Your task to perform on an android device: turn on the 24-hour format for clock Image 0: 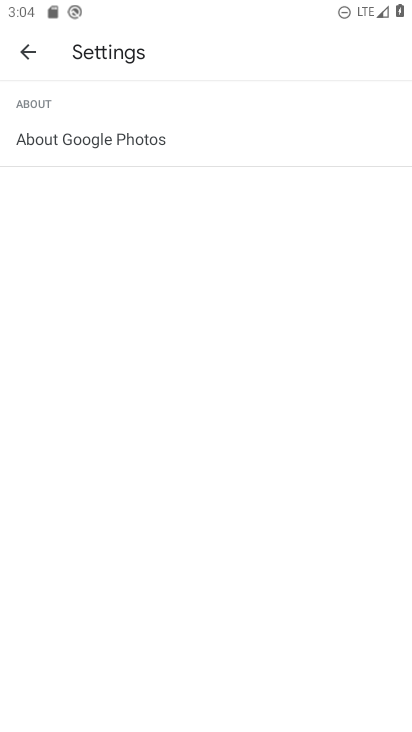
Step 0: drag from (180, 639) to (215, 256)
Your task to perform on an android device: turn on the 24-hour format for clock Image 1: 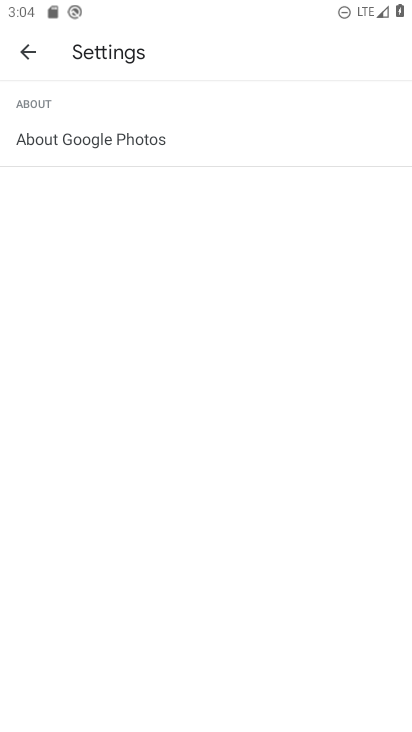
Step 1: press home button
Your task to perform on an android device: turn on the 24-hour format for clock Image 2: 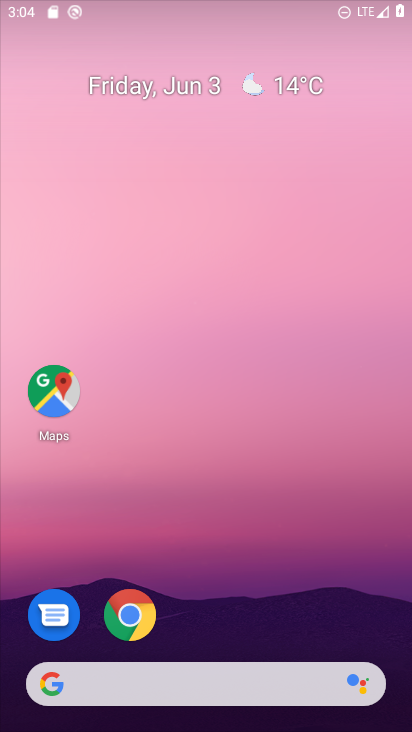
Step 2: drag from (298, 566) to (335, 107)
Your task to perform on an android device: turn on the 24-hour format for clock Image 3: 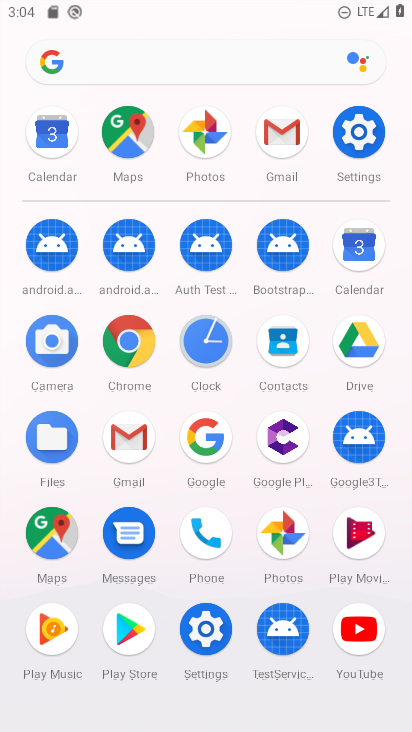
Step 3: click (205, 345)
Your task to perform on an android device: turn on the 24-hour format for clock Image 4: 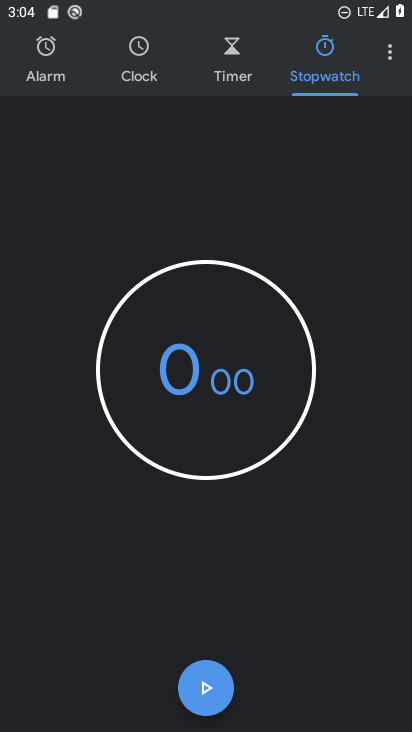
Step 4: drag from (295, 597) to (284, 119)
Your task to perform on an android device: turn on the 24-hour format for clock Image 5: 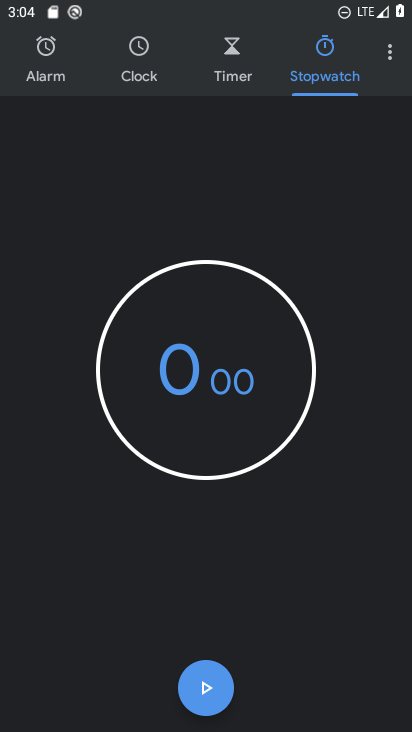
Step 5: click (397, 51)
Your task to perform on an android device: turn on the 24-hour format for clock Image 6: 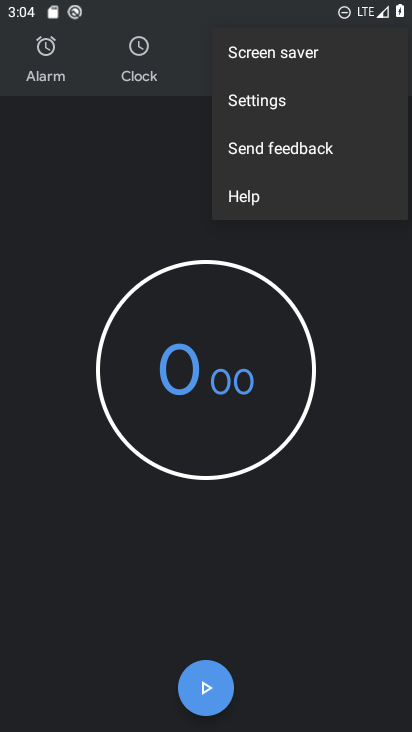
Step 6: click (304, 75)
Your task to perform on an android device: turn on the 24-hour format for clock Image 7: 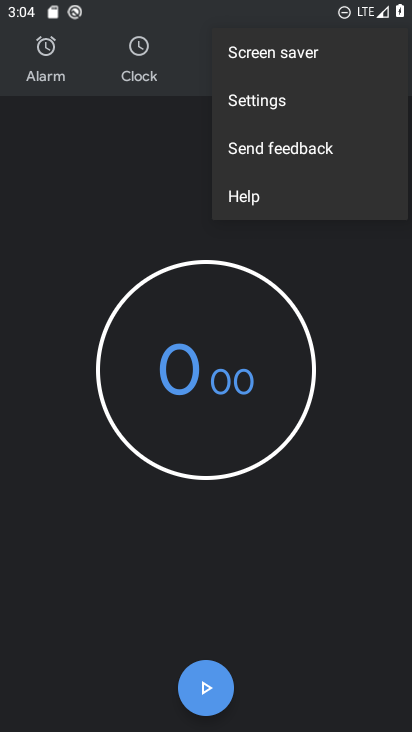
Step 7: click (303, 76)
Your task to perform on an android device: turn on the 24-hour format for clock Image 8: 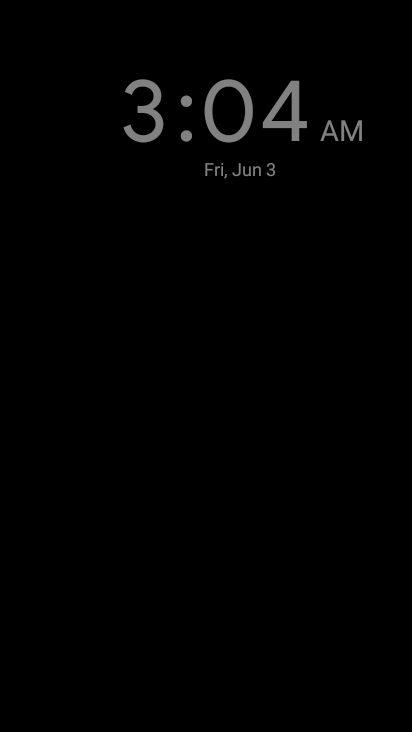
Step 8: click (261, 273)
Your task to perform on an android device: turn on the 24-hour format for clock Image 9: 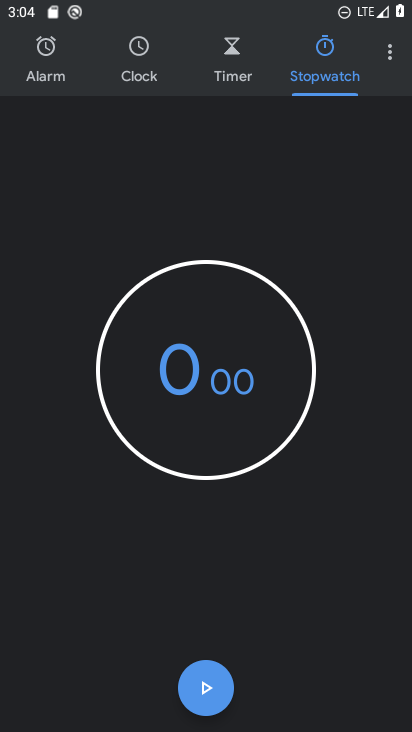
Step 9: click (381, 50)
Your task to perform on an android device: turn on the 24-hour format for clock Image 10: 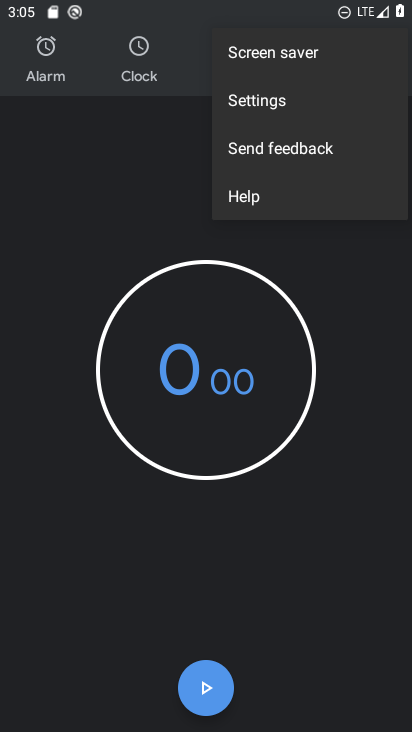
Step 10: click (287, 109)
Your task to perform on an android device: turn on the 24-hour format for clock Image 11: 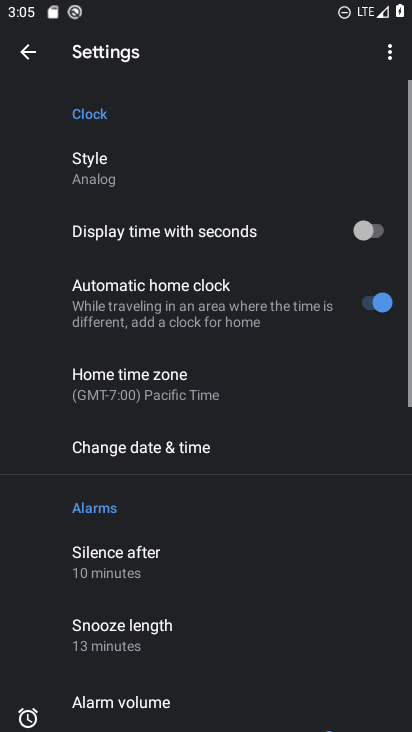
Step 11: drag from (260, 486) to (275, 129)
Your task to perform on an android device: turn on the 24-hour format for clock Image 12: 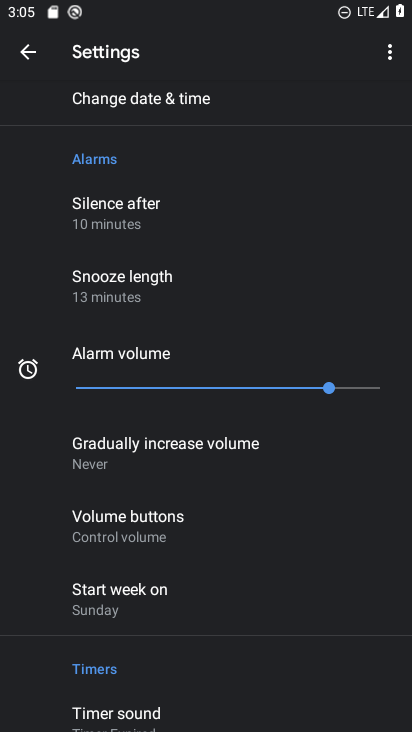
Step 12: click (188, 102)
Your task to perform on an android device: turn on the 24-hour format for clock Image 13: 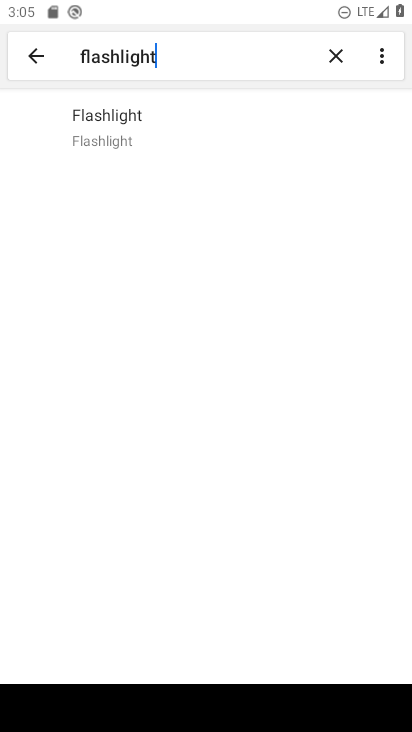
Step 13: click (179, 111)
Your task to perform on an android device: turn on the 24-hour format for clock Image 14: 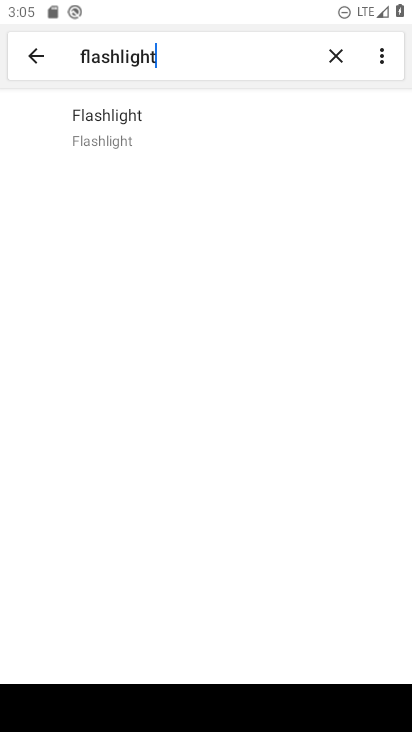
Step 14: press home button
Your task to perform on an android device: turn on the 24-hour format for clock Image 15: 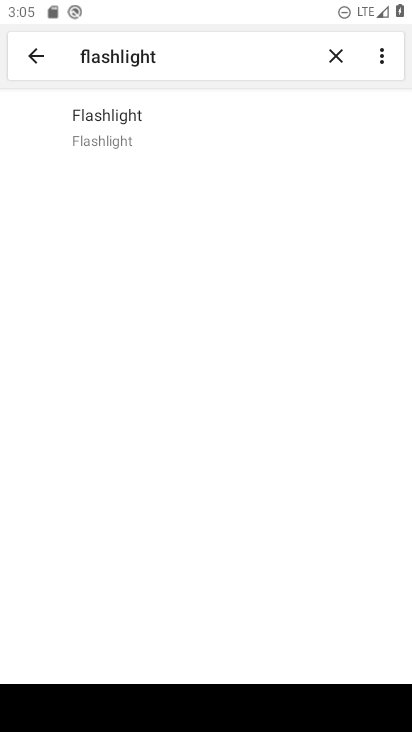
Step 15: drag from (276, 501) to (283, 36)
Your task to perform on an android device: turn on the 24-hour format for clock Image 16: 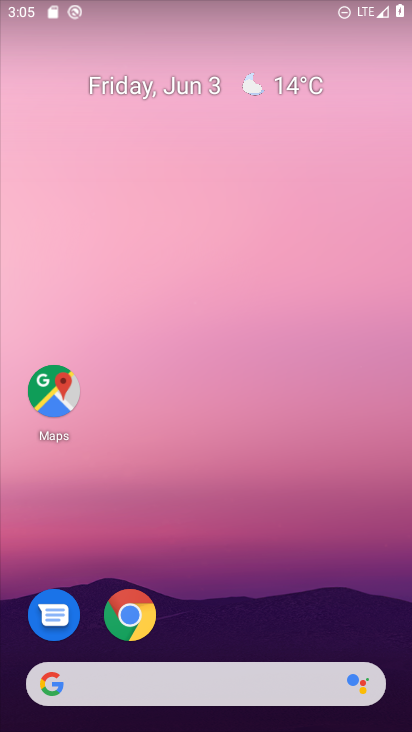
Step 16: drag from (187, 588) to (204, 7)
Your task to perform on an android device: turn on the 24-hour format for clock Image 17: 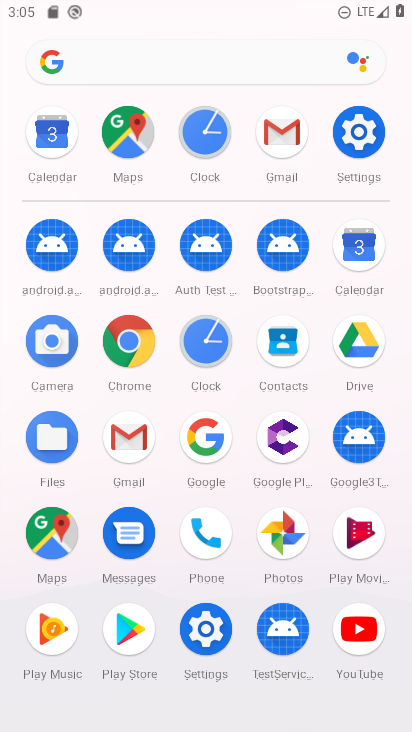
Step 17: click (209, 333)
Your task to perform on an android device: turn on the 24-hour format for clock Image 18: 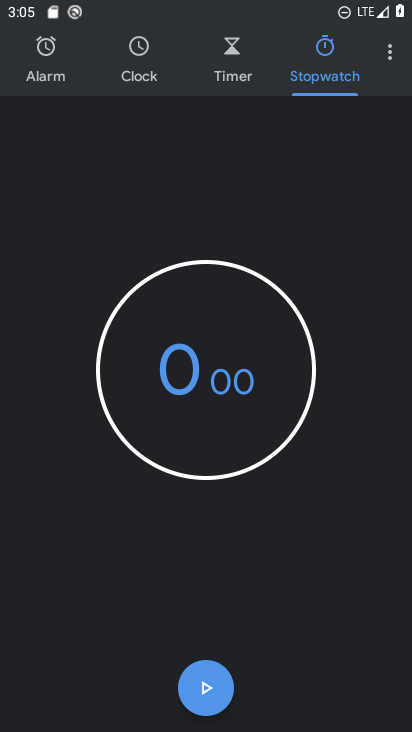
Step 18: click (393, 50)
Your task to perform on an android device: turn on the 24-hour format for clock Image 19: 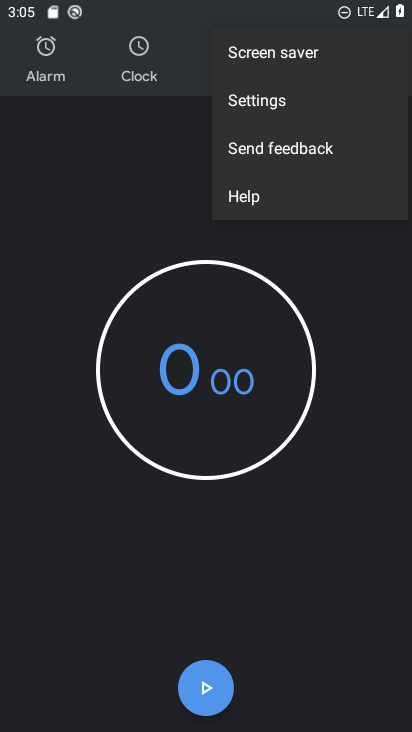
Step 19: click (298, 98)
Your task to perform on an android device: turn on the 24-hour format for clock Image 20: 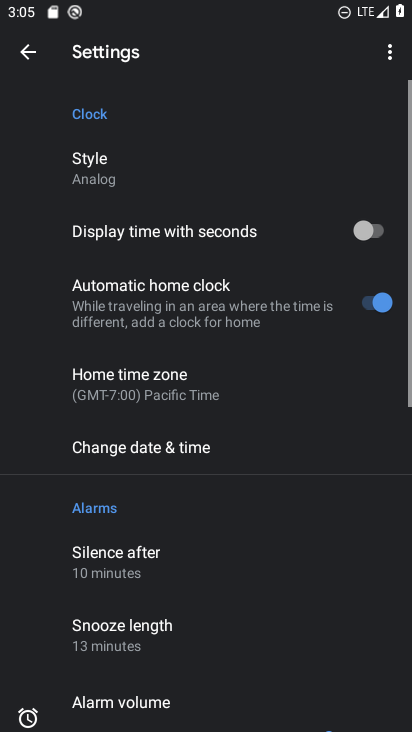
Step 20: drag from (217, 509) to (253, 40)
Your task to perform on an android device: turn on the 24-hour format for clock Image 21: 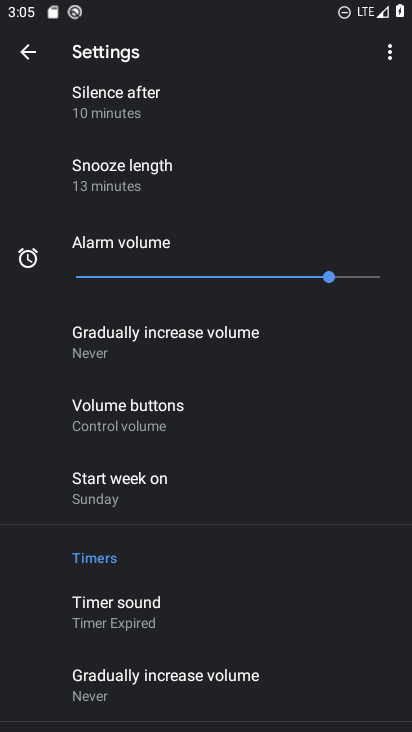
Step 21: drag from (233, 119) to (242, 650)
Your task to perform on an android device: turn on the 24-hour format for clock Image 22: 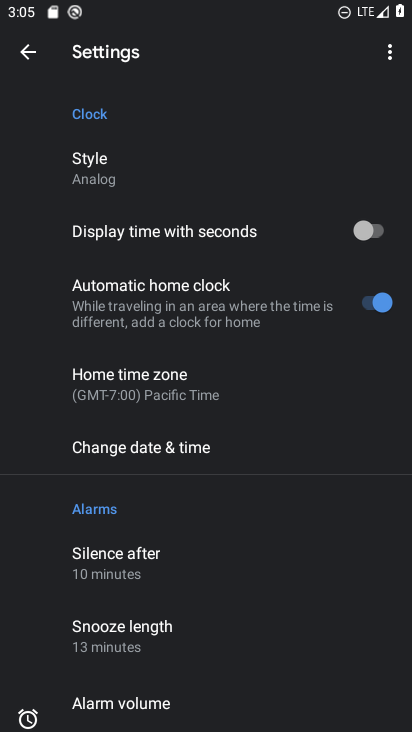
Step 22: click (109, 443)
Your task to perform on an android device: turn on the 24-hour format for clock Image 23: 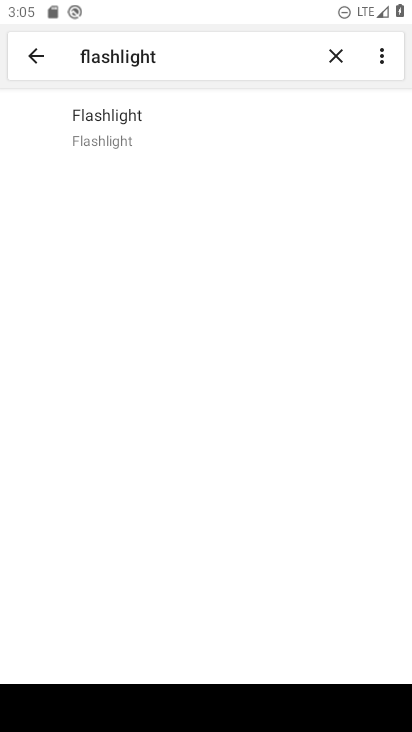
Step 23: task complete